Your task to perform on an android device: Open Yahoo.com Image 0: 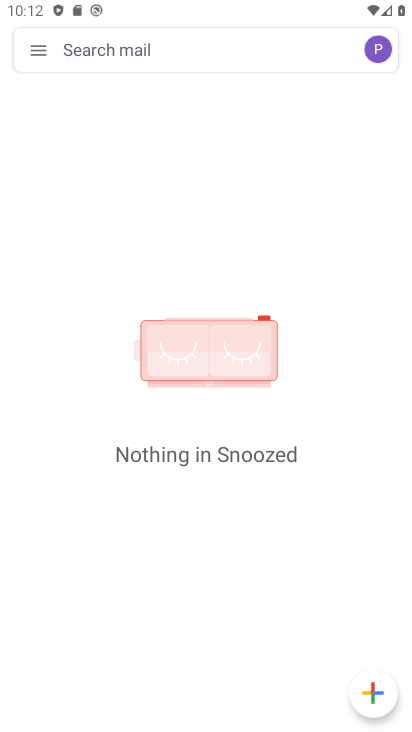
Step 0: press home button
Your task to perform on an android device: Open Yahoo.com Image 1: 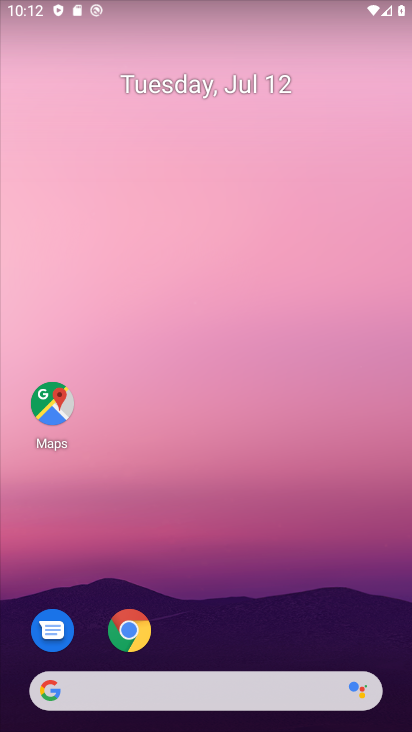
Step 1: drag from (345, 587) to (330, 39)
Your task to perform on an android device: Open Yahoo.com Image 2: 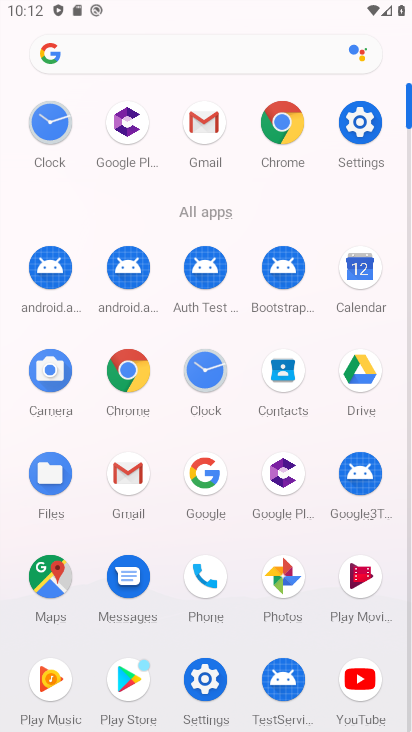
Step 2: click (128, 376)
Your task to perform on an android device: Open Yahoo.com Image 3: 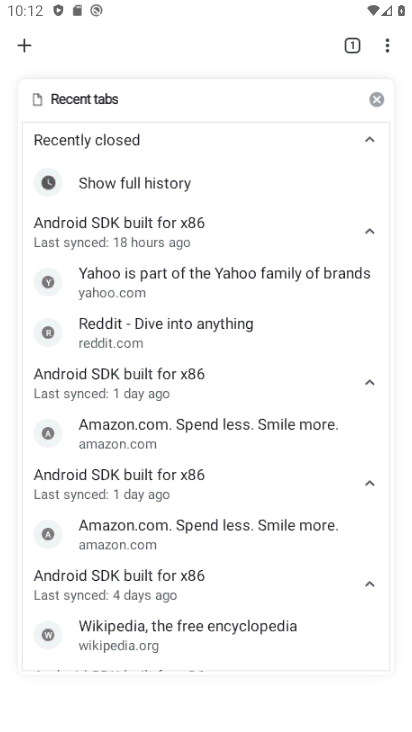
Step 3: press back button
Your task to perform on an android device: Open Yahoo.com Image 4: 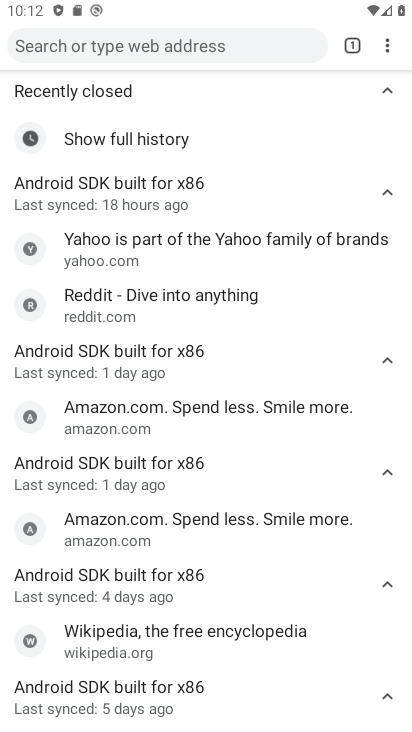
Step 4: click (242, 48)
Your task to perform on an android device: Open Yahoo.com Image 5: 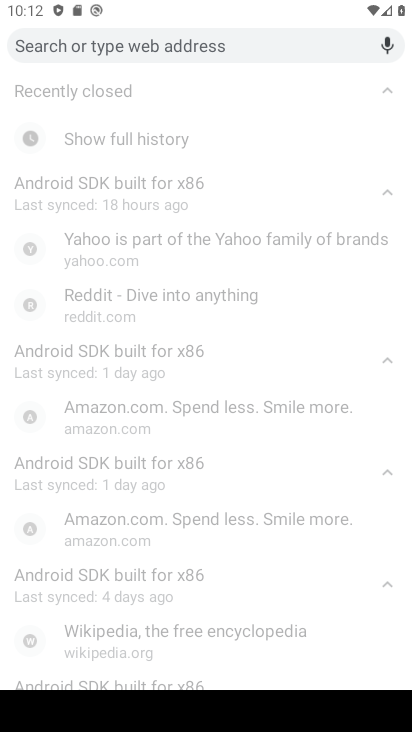
Step 5: type "yahoo.com"
Your task to perform on an android device: Open Yahoo.com Image 6: 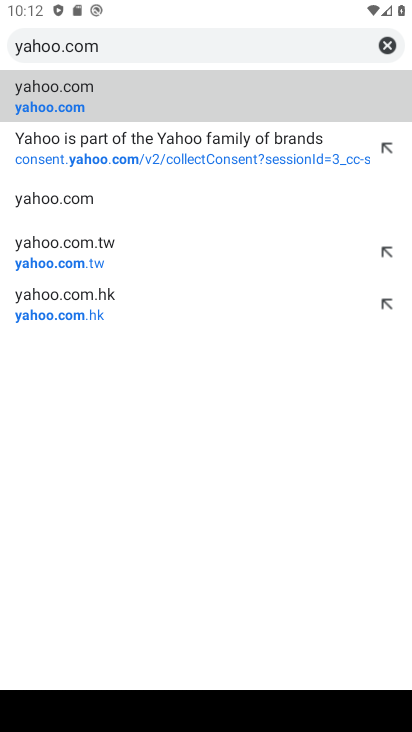
Step 6: click (167, 106)
Your task to perform on an android device: Open Yahoo.com Image 7: 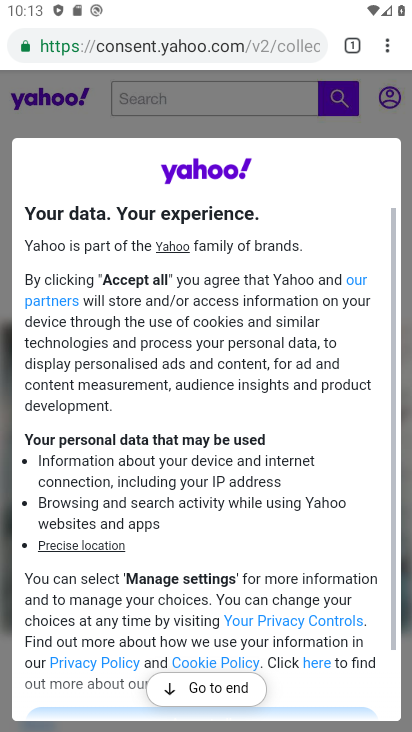
Step 7: task complete